Your task to perform on an android device: Open display settings Image 0: 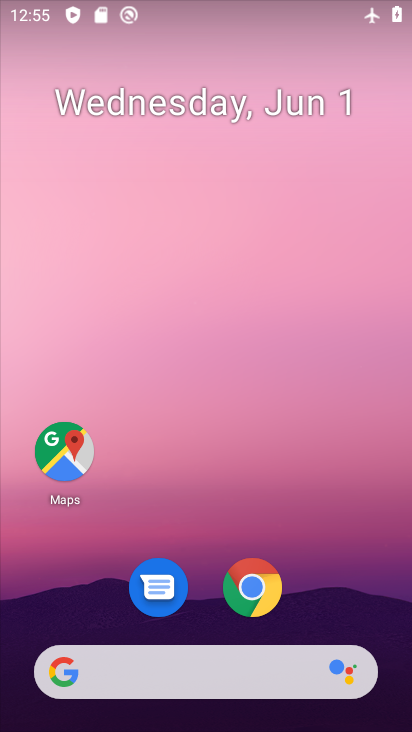
Step 0: drag from (195, 196) to (164, 6)
Your task to perform on an android device: Open display settings Image 1: 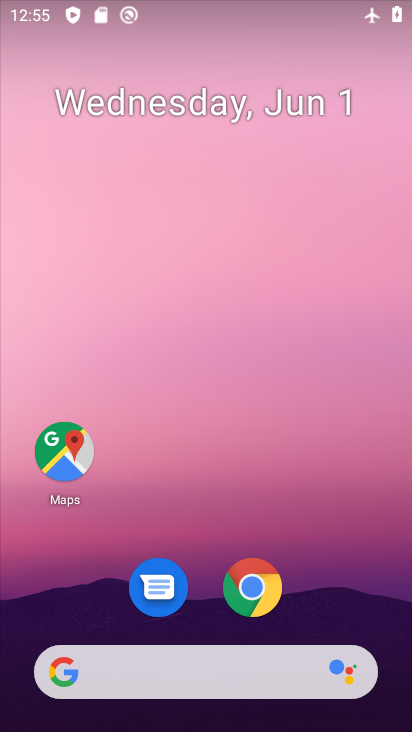
Step 1: drag from (314, 520) to (248, 203)
Your task to perform on an android device: Open display settings Image 2: 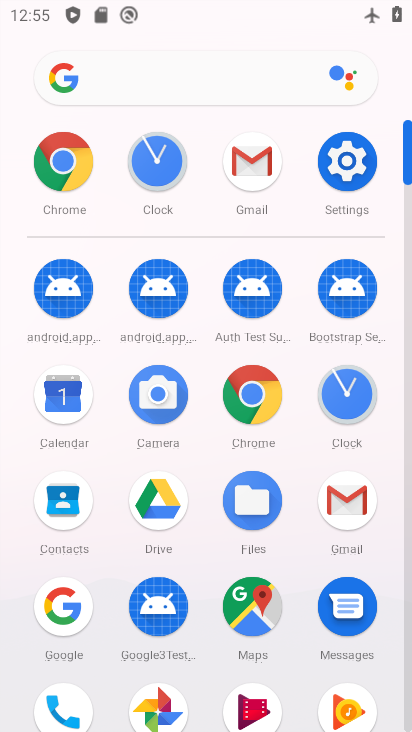
Step 2: click (343, 155)
Your task to perform on an android device: Open display settings Image 3: 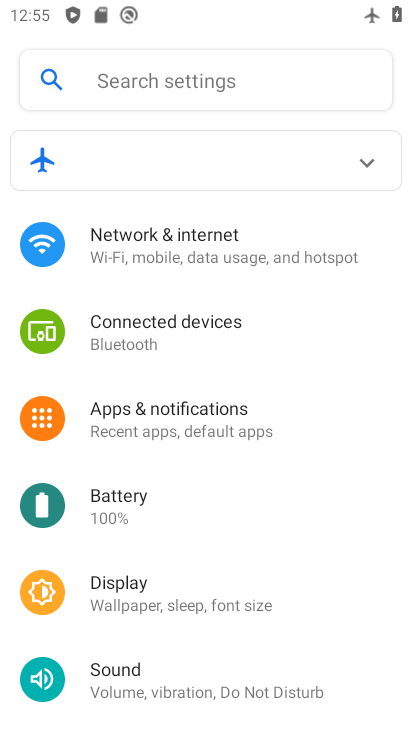
Step 3: click (124, 591)
Your task to perform on an android device: Open display settings Image 4: 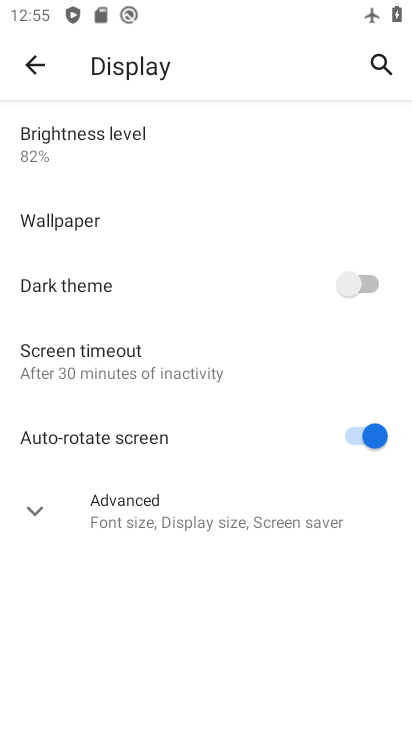
Step 4: task complete